Your task to perform on an android device: Search for "panasonic triple a" on bestbuy.com, select the first entry, add it to the cart, then select checkout. Image 0: 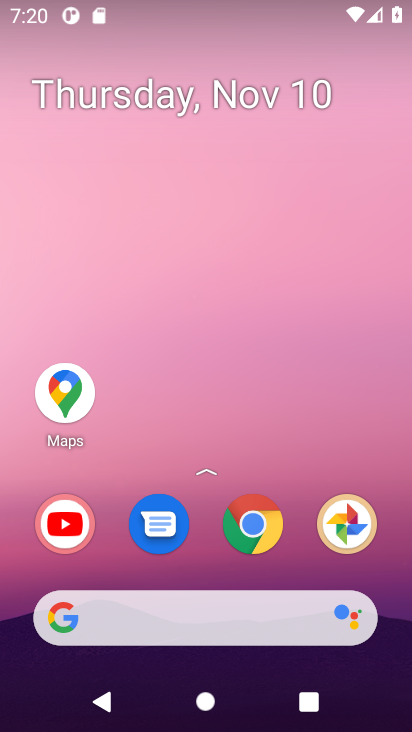
Step 0: click (250, 520)
Your task to perform on an android device: Search for "panasonic triple a" on bestbuy.com, select the first entry, add it to the cart, then select checkout. Image 1: 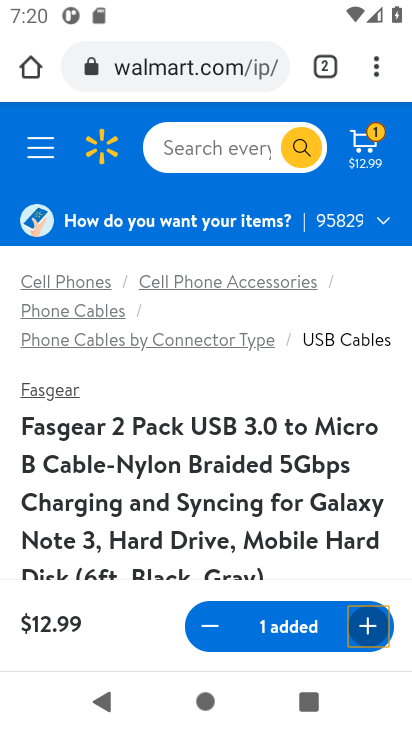
Step 1: click (325, 55)
Your task to perform on an android device: Search for "panasonic triple a" on bestbuy.com, select the first entry, add it to the cart, then select checkout. Image 2: 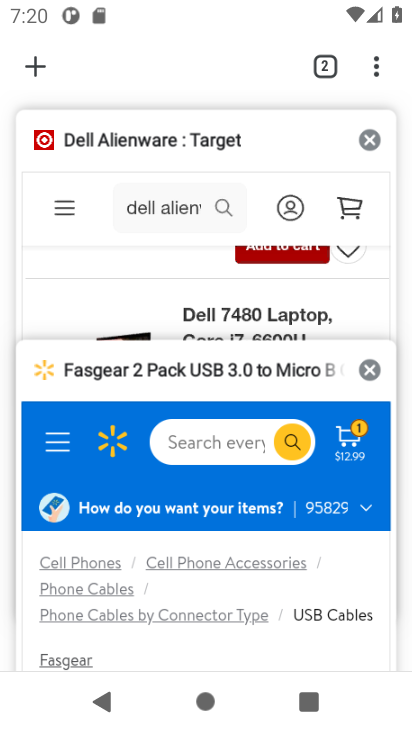
Step 2: click (38, 54)
Your task to perform on an android device: Search for "panasonic triple a" on bestbuy.com, select the first entry, add it to the cart, then select checkout. Image 3: 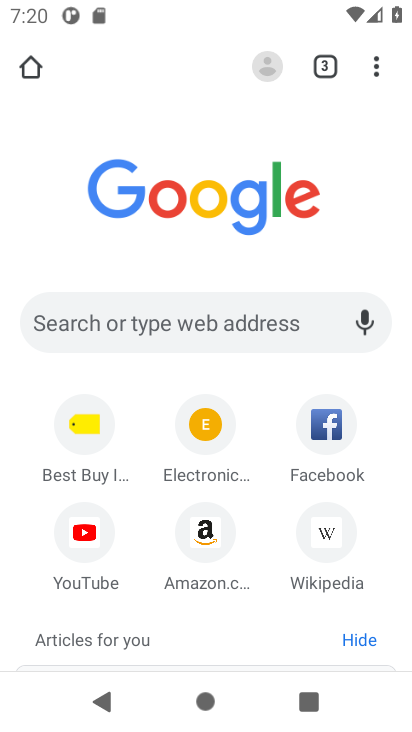
Step 3: click (156, 318)
Your task to perform on an android device: Search for "panasonic triple a" on bestbuy.com, select the first entry, add it to the cart, then select checkout. Image 4: 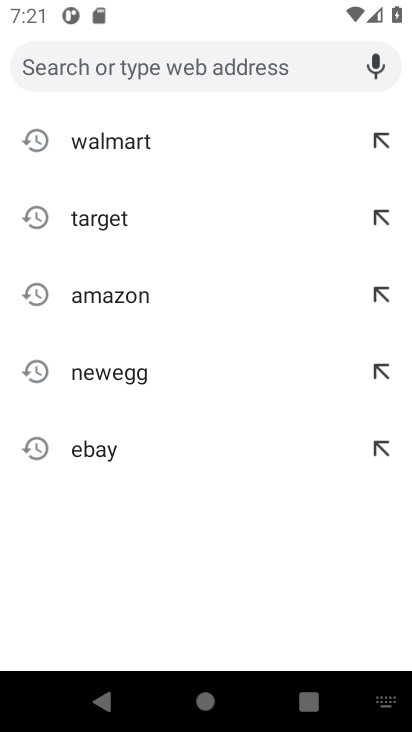
Step 4: type "bestbuy"
Your task to perform on an android device: Search for "panasonic triple a" on bestbuy.com, select the first entry, add it to the cart, then select checkout. Image 5: 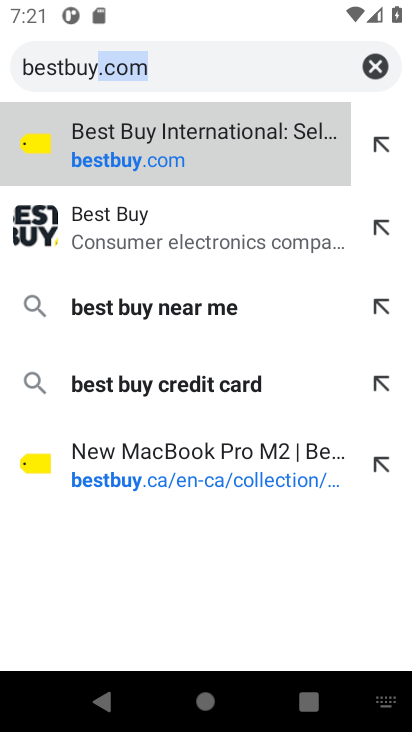
Step 5: click (110, 219)
Your task to perform on an android device: Search for "panasonic triple a" on bestbuy.com, select the first entry, add it to the cart, then select checkout. Image 6: 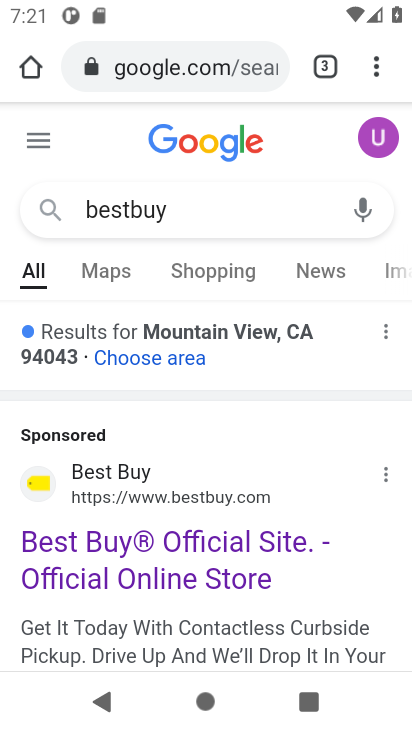
Step 6: click (177, 535)
Your task to perform on an android device: Search for "panasonic triple a" on bestbuy.com, select the first entry, add it to the cart, then select checkout. Image 7: 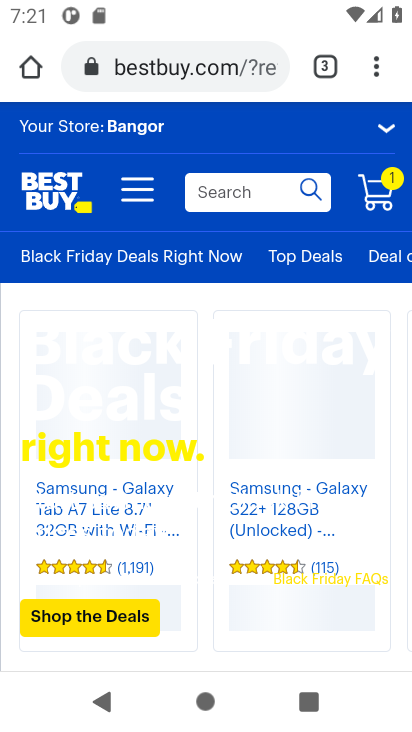
Step 7: click (231, 192)
Your task to perform on an android device: Search for "panasonic triple a" on bestbuy.com, select the first entry, add it to the cart, then select checkout. Image 8: 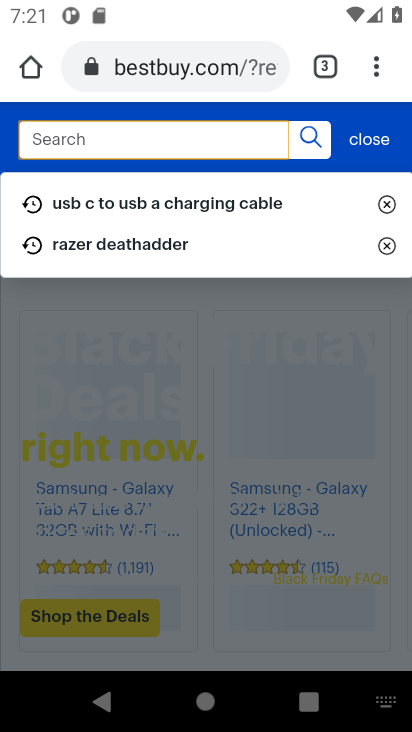
Step 8: type "panasonic triple a"
Your task to perform on an android device: Search for "panasonic triple a" on bestbuy.com, select the first entry, add it to the cart, then select checkout. Image 9: 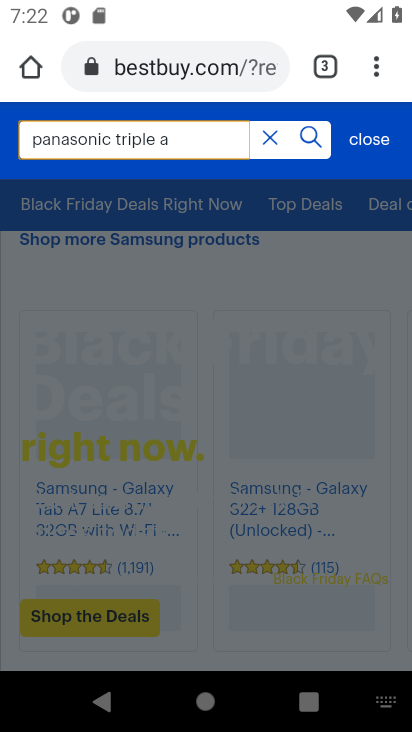
Step 9: click (309, 133)
Your task to perform on an android device: Search for "panasonic triple a" on bestbuy.com, select the first entry, add it to the cart, then select checkout. Image 10: 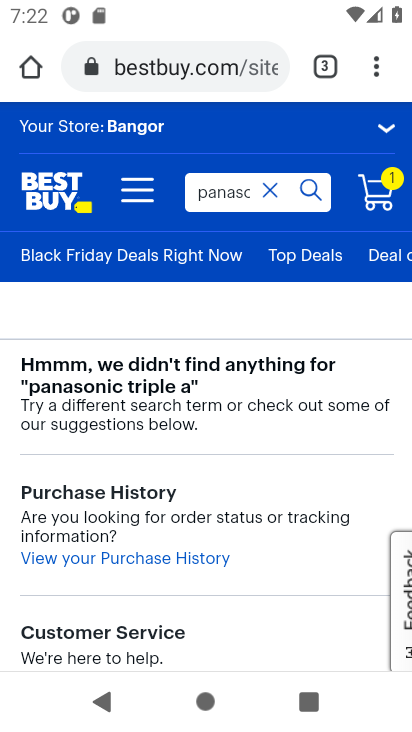
Step 10: drag from (253, 472) to (166, 180)
Your task to perform on an android device: Search for "panasonic triple a" on bestbuy.com, select the first entry, add it to the cart, then select checkout. Image 11: 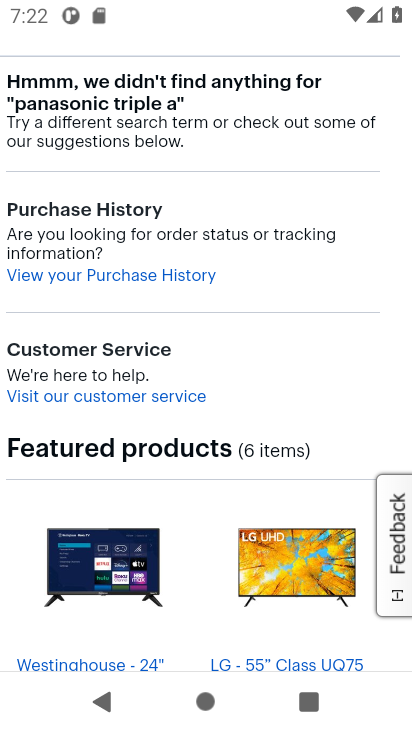
Step 11: drag from (237, 413) to (151, 156)
Your task to perform on an android device: Search for "panasonic triple a" on bestbuy.com, select the first entry, add it to the cart, then select checkout. Image 12: 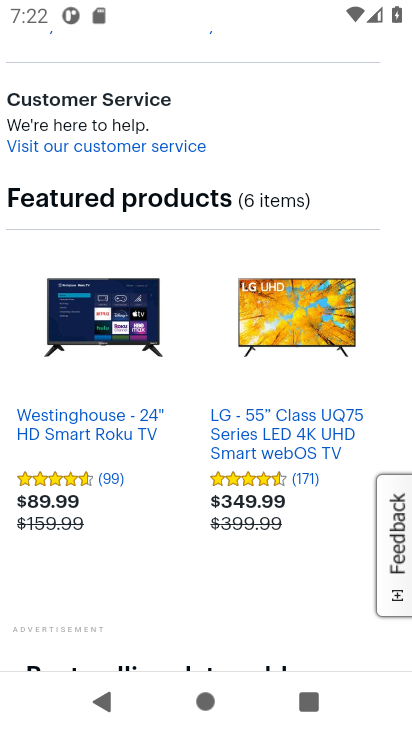
Step 12: drag from (126, 580) to (66, 214)
Your task to perform on an android device: Search for "panasonic triple a" on bestbuy.com, select the first entry, add it to the cart, then select checkout. Image 13: 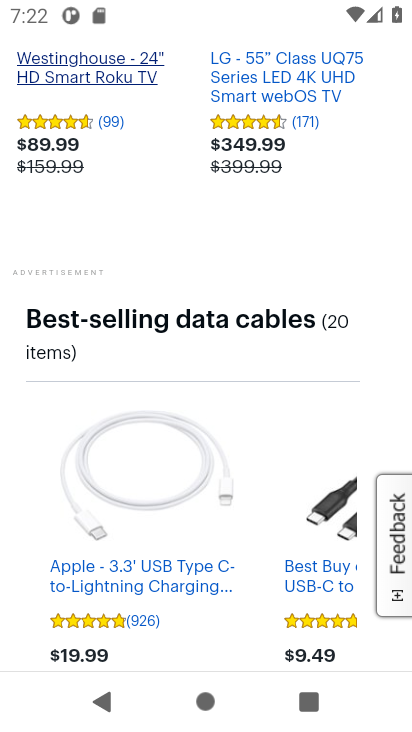
Step 13: drag from (224, 275) to (101, 8)
Your task to perform on an android device: Search for "panasonic triple a" on bestbuy.com, select the first entry, add it to the cart, then select checkout. Image 14: 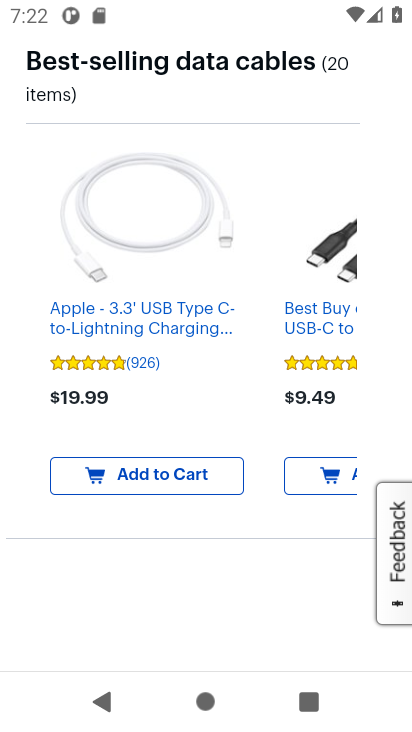
Step 14: drag from (209, 628) to (192, 291)
Your task to perform on an android device: Search for "panasonic triple a" on bestbuy.com, select the first entry, add it to the cart, then select checkout. Image 15: 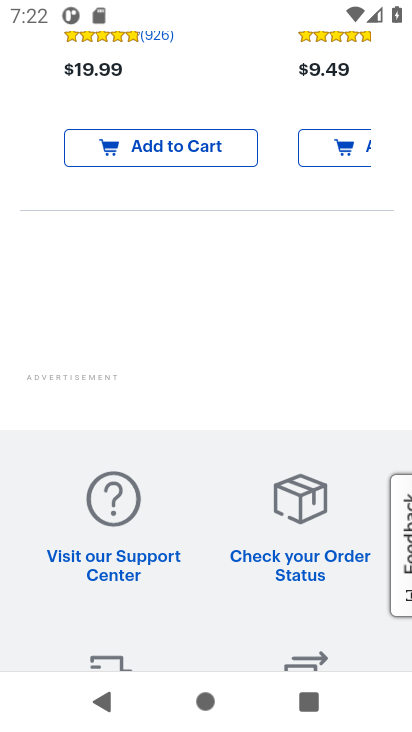
Step 15: drag from (194, 405) to (174, 13)
Your task to perform on an android device: Search for "panasonic triple a" on bestbuy.com, select the first entry, add it to the cart, then select checkout. Image 16: 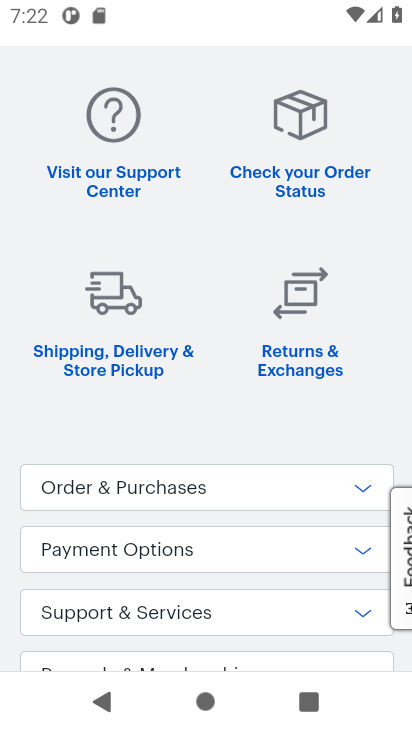
Step 16: drag from (231, 416) to (198, 133)
Your task to perform on an android device: Search for "panasonic triple a" on bestbuy.com, select the first entry, add it to the cart, then select checkout. Image 17: 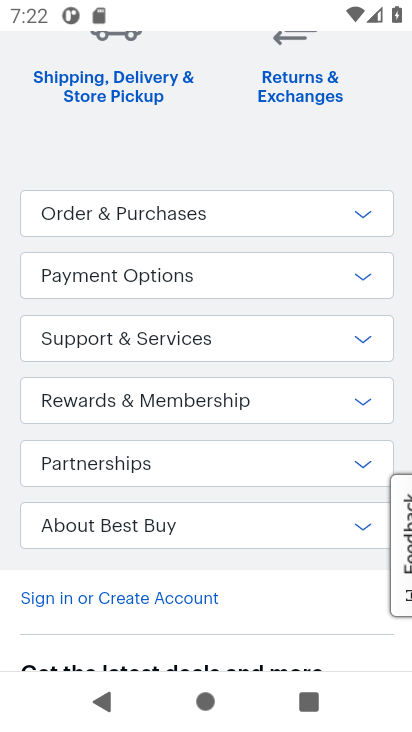
Step 17: drag from (287, 590) to (223, 99)
Your task to perform on an android device: Search for "panasonic triple a" on bestbuy.com, select the first entry, add it to the cart, then select checkout. Image 18: 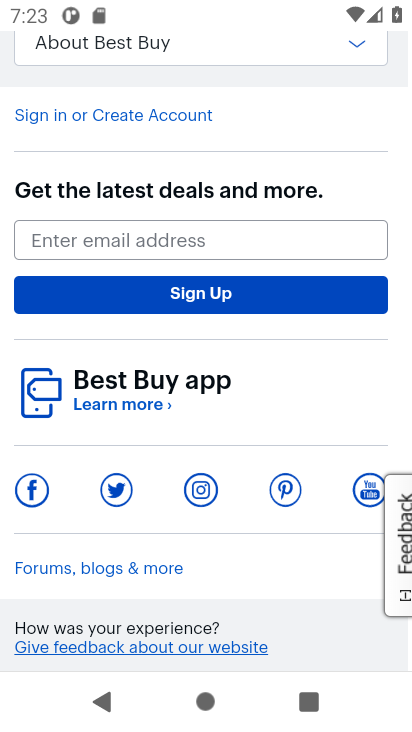
Step 18: press back button
Your task to perform on an android device: Search for "panasonic triple a" on bestbuy.com, select the first entry, add it to the cart, then select checkout. Image 19: 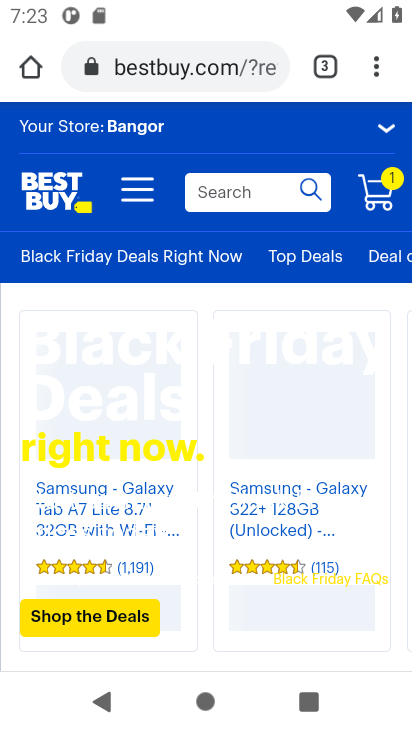
Step 19: click (226, 194)
Your task to perform on an android device: Search for "panasonic triple a" on bestbuy.com, select the first entry, add it to the cart, then select checkout. Image 20: 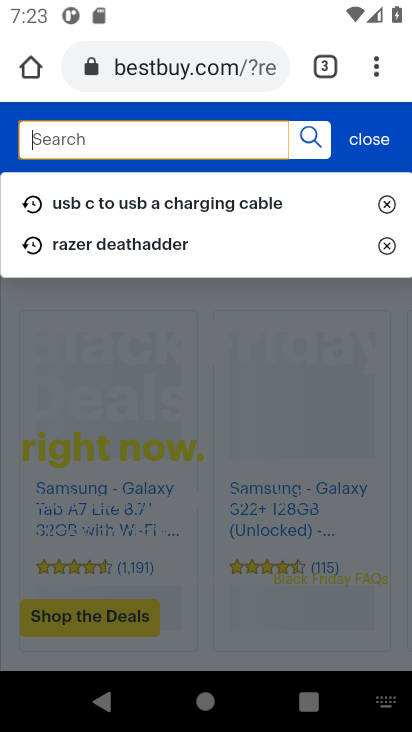
Step 20: type "panasonic triple a battery"
Your task to perform on an android device: Search for "panasonic triple a" on bestbuy.com, select the first entry, add it to the cart, then select checkout. Image 21: 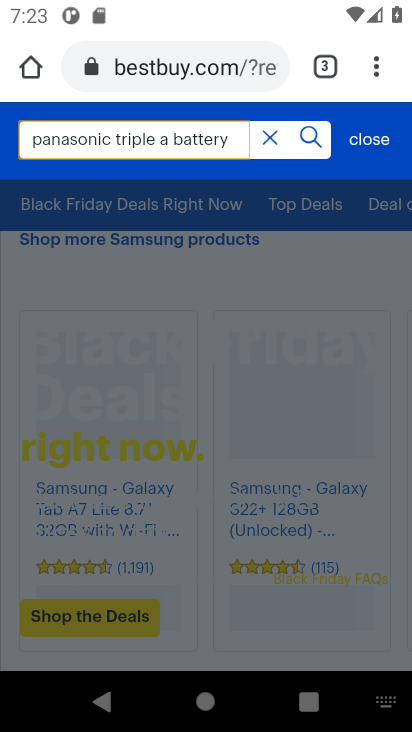
Step 21: click (317, 142)
Your task to perform on an android device: Search for "panasonic triple a" on bestbuy.com, select the first entry, add it to the cart, then select checkout. Image 22: 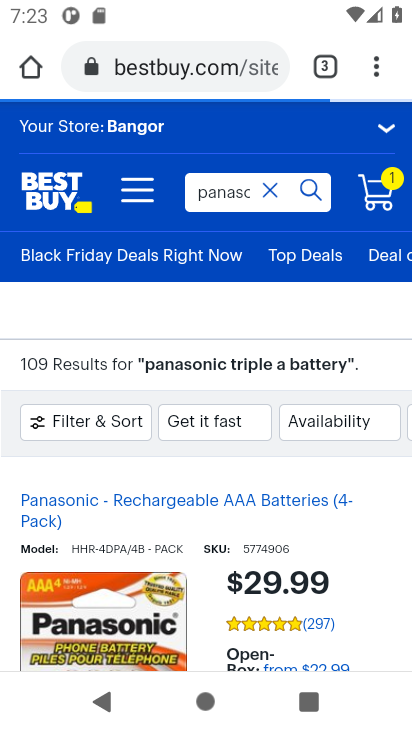
Step 22: drag from (356, 537) to (359, 192)
Your task to perform on an android device: Search for "panasonic triple a" on bestbuy.com, select the first entry, add it to the cart, then select checkout. Image 23: 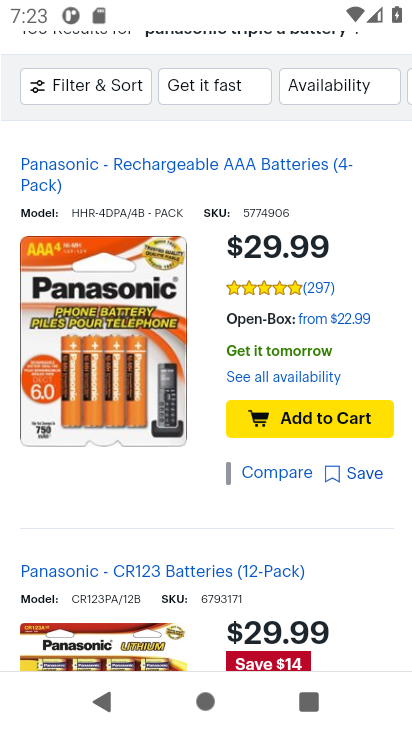
Step 23: click (326, 422)
Your task to perform on an android device: Search for "panasonic triple a" on bestbuy.com, select the first entry, add it to the cart, then select checkout. Image 24: 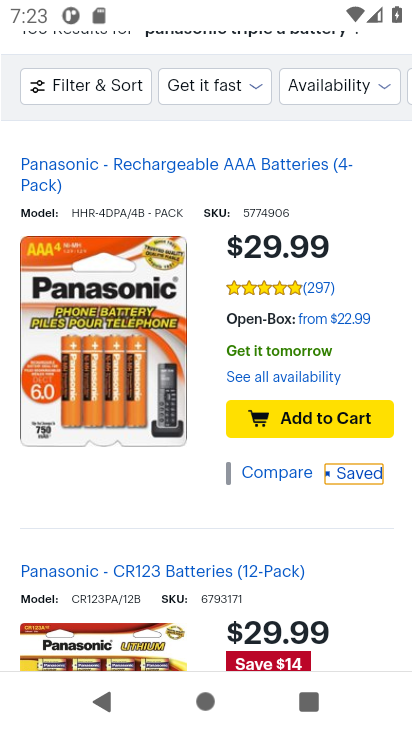
Step 24: click (313, 414)
Your task to perform on an android device: Search for "panasonic triple a" on bestbuy.com, select the first entry, add it to the cart, then select checkout. Image 25: 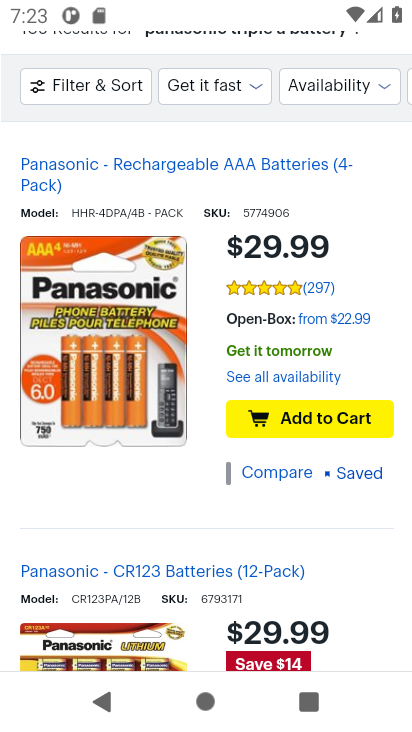
Step 25: task complete